Your task to perform on an android device: Go to sound settings Image 0: 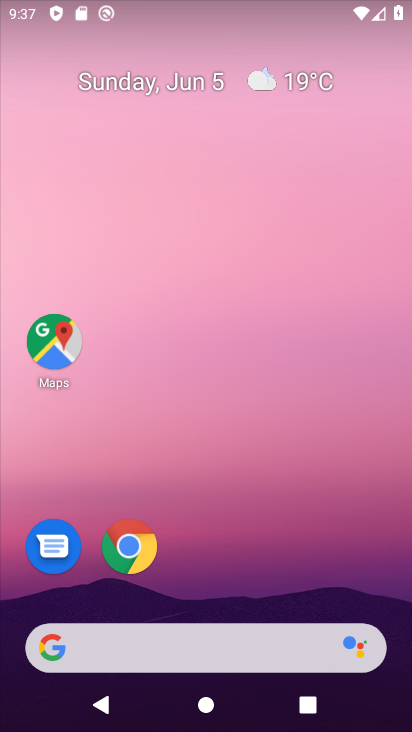
Step 0: click (366, 108)
Your task to perform on an android device: Go to sound settings Image 1: 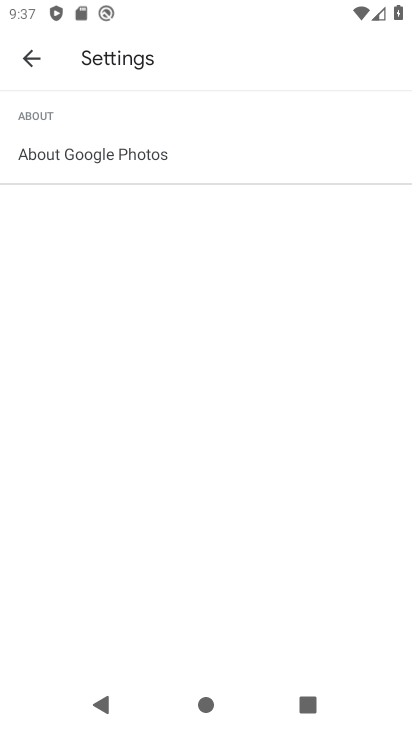
Step 1: press home button
Your task to perform on an android device: Go to sound settings Image 2: 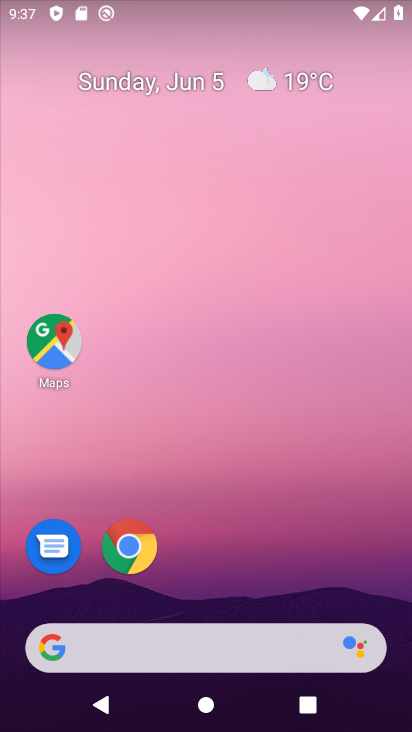
Step 2: drag from (187, 612) to (316, 136)
Your task to perform on an android device: Go to sound settings Image 3: 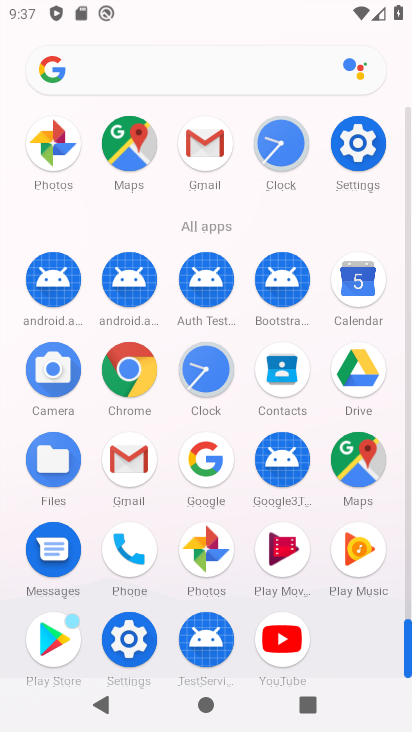
Step 3: drag from (151, 655) to (214, 410)
Your task to perform on an android device: Go to sound settings Image 4: 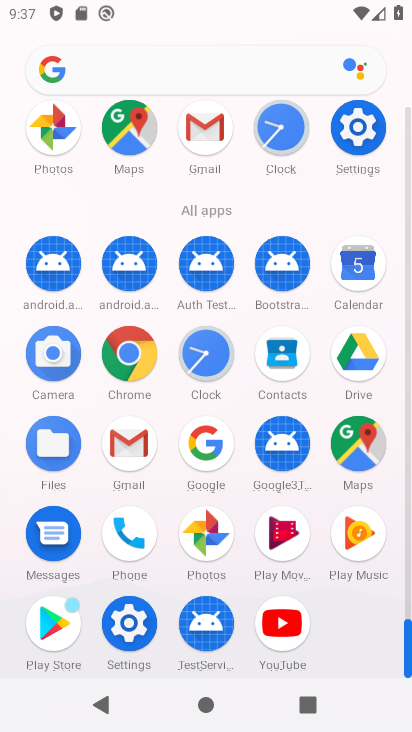
Step 4: click (125, 625)
Your task to perform on an android device: Go to sound settings Image 5: 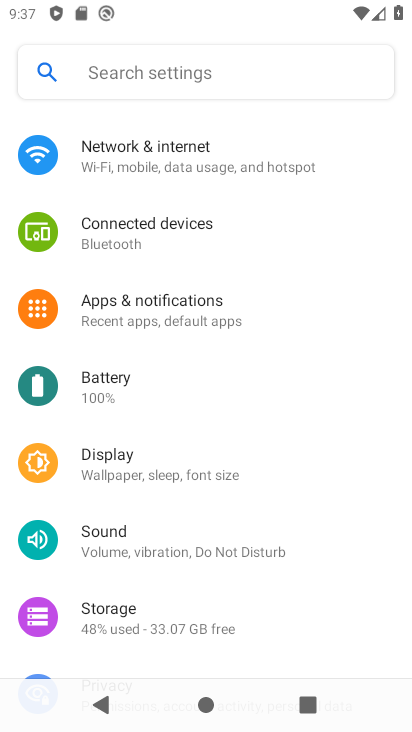
Step 5: drag from (193, 611) to (252, 470)
Your task to perform on an android device: Go to sound settings Image 6: 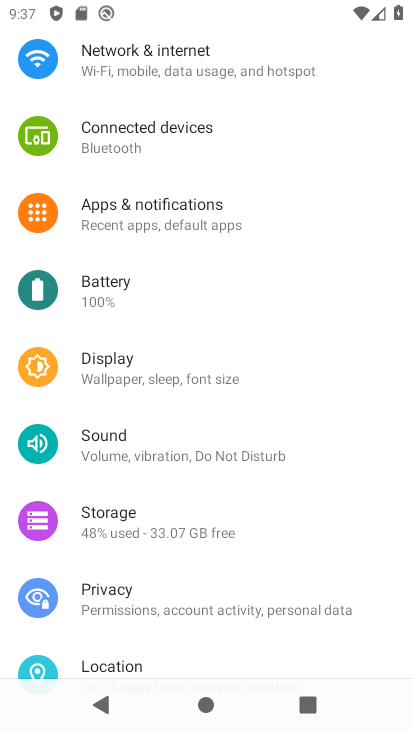
Step 6: click (180, 460)
Your task to perform on an android device: Go to sound settings Image 7: 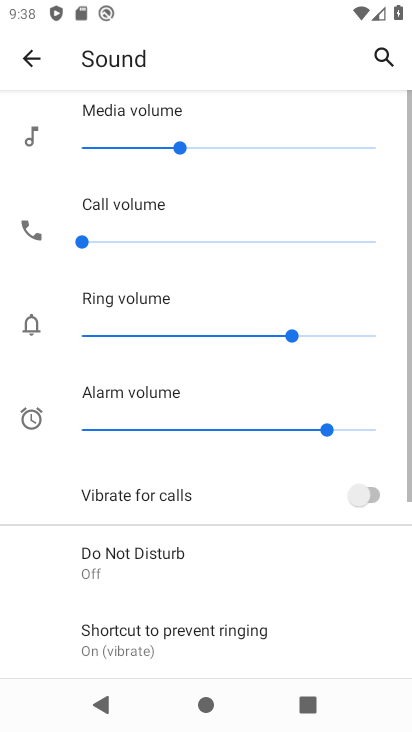
Step 7: task complete